Your task to perform on an android device: turn off javascript in the chrome app Image 0: 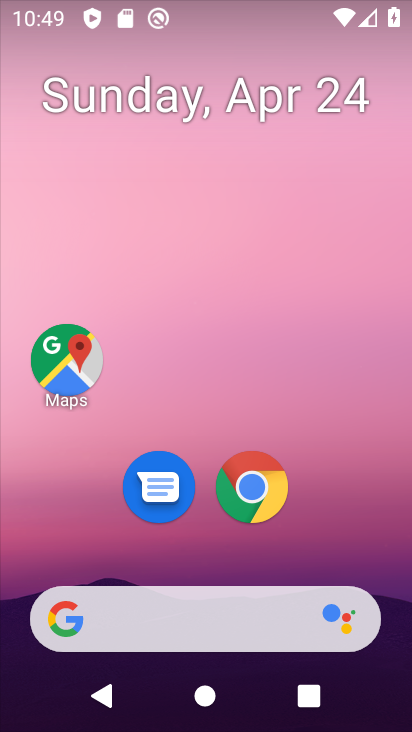
Step 0: click (232, 498)
Your task to perform on an android device: turn off javascript in the chrome app Image 1: 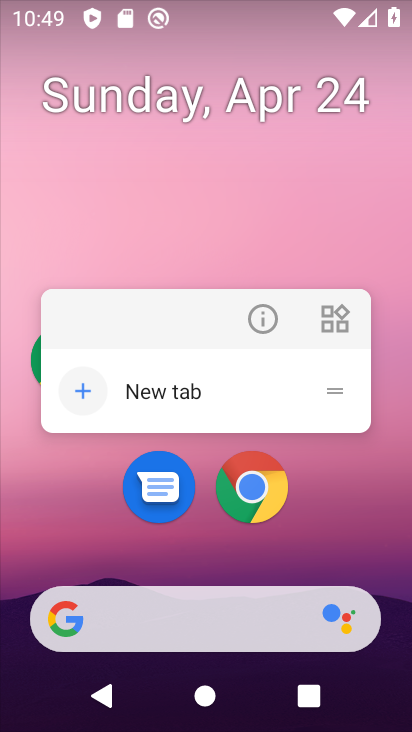
Step 1: click (266, 324)
Your task to perform on an android device: turn off javascript in the chrome app Image 2: 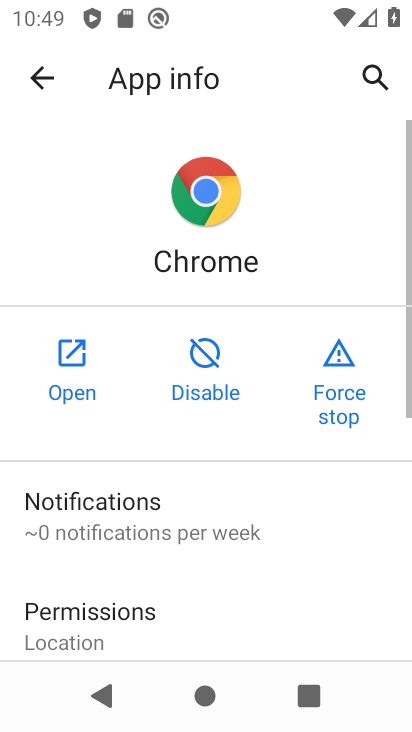
Step 2: click (80, 360)
Your task to perform on an android device: turn off javascript in the chrome app Image 3: 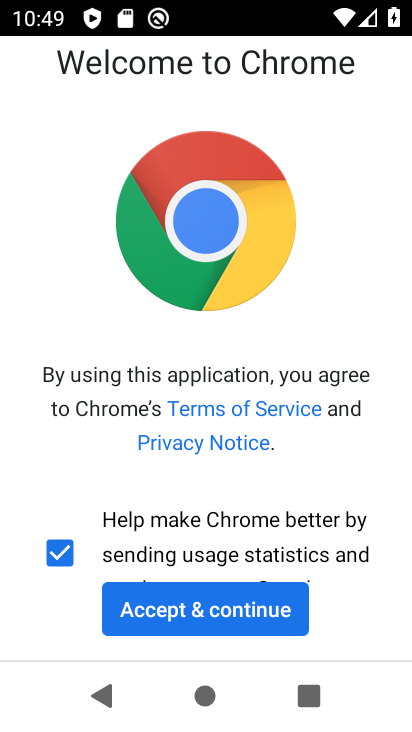
Step 3: click (181, 597)
Your task to perform on an android device: turn off javascript in the chrome app Image 4: 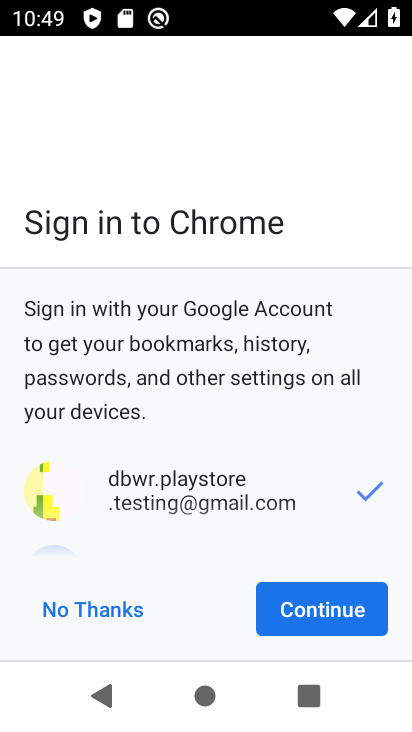
Step 4: click (68, 609)
Your task to perform on an android device: turn off javascript in the chrome app Image 5: 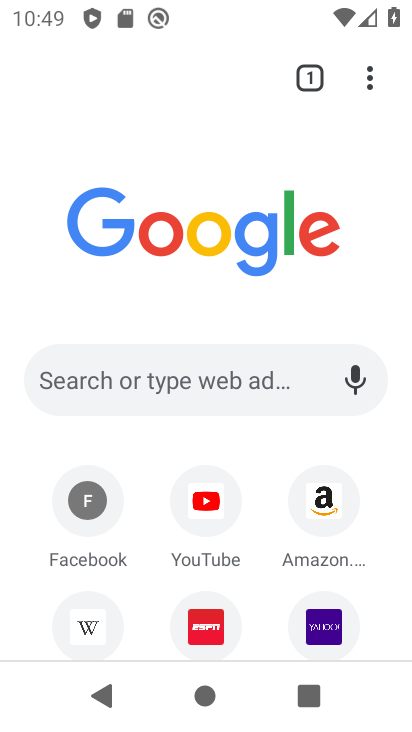
Step 5: click (373, 70)
Your task to perform on an android device: turn off javascript in the chrome app Image 6: 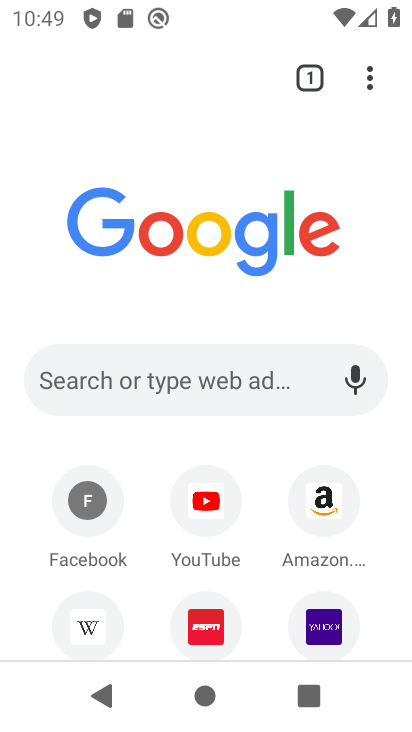
Step 6: click (371, 67)
Your task to perform on an android device: turn off javascript in the chrome app Image 7: 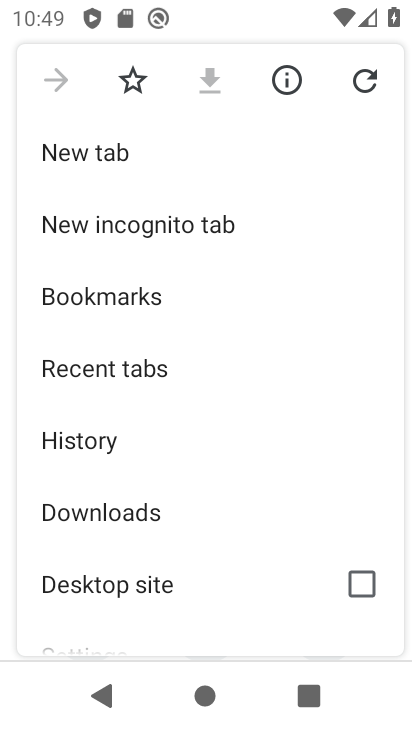
Step 7: drag from (199, 503) to (282, 241)
Your task to perform on an android device: turn off javascript in the chrome app Image 8: 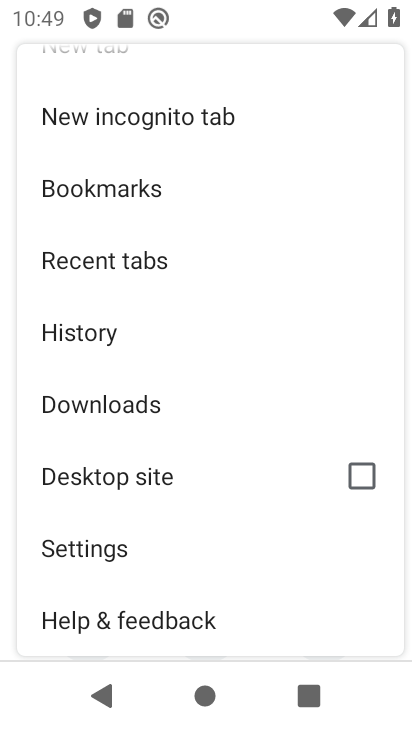
Step 8: click (93, 532)
Your task to perform on an android device: turn off javascript in the chrome app Image 9: 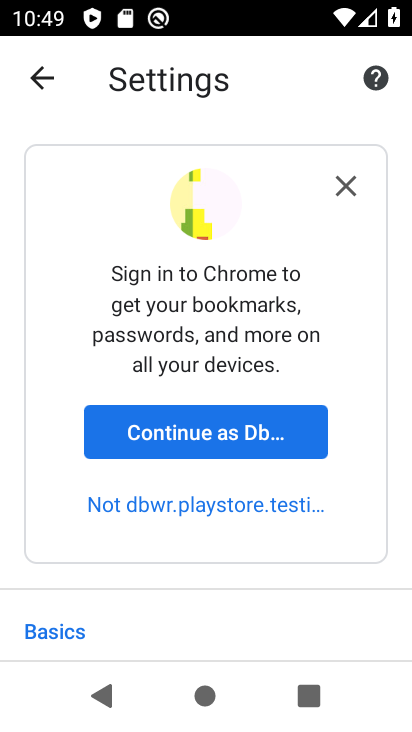
Step 9: click (341, 186)
Your task to perform on an android device: turn off javascript in the chrome app Image 10: 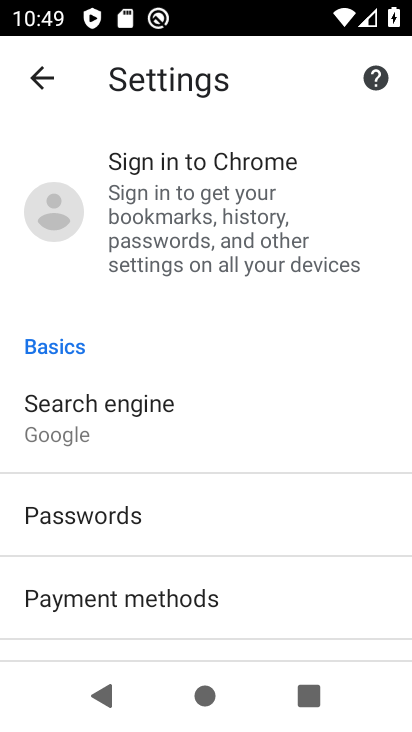
Step 10: drag from (155, 554) to (259, 114)
Your task to perform on an android device: turn off javascript in the chrome app Image 11: 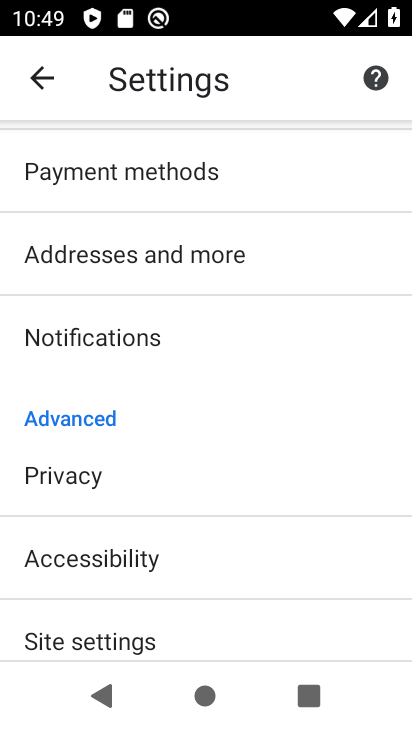
Step 11: drag from (72, 593) to (155, 294)
Your task to perform on an android device: turn off javascript in the chrome app Image 12: 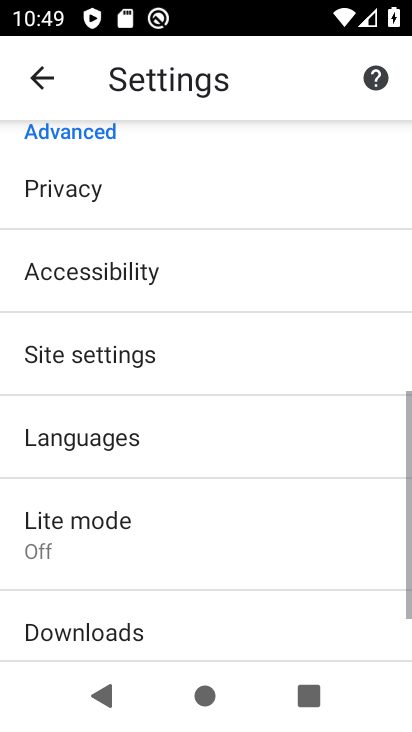
Step 12: click (69, 358)
Your task to perform on an android device: turn off javascript in the chrome app Image 13: 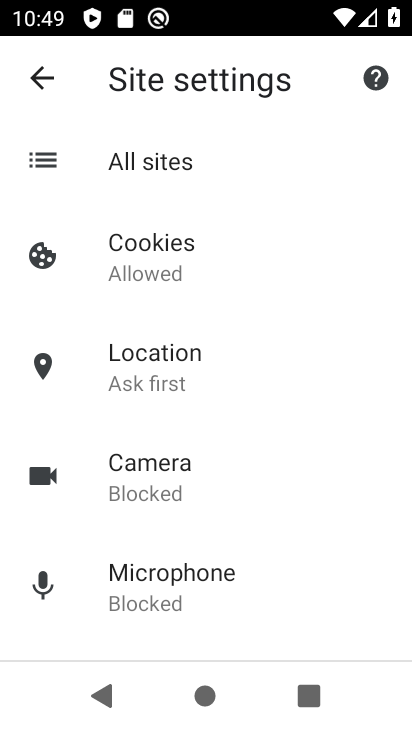
Step 13: drag from (264, 571) to (316, 265)
Your task to perform on an android device: turn off javascript in the chrome app Image 14: 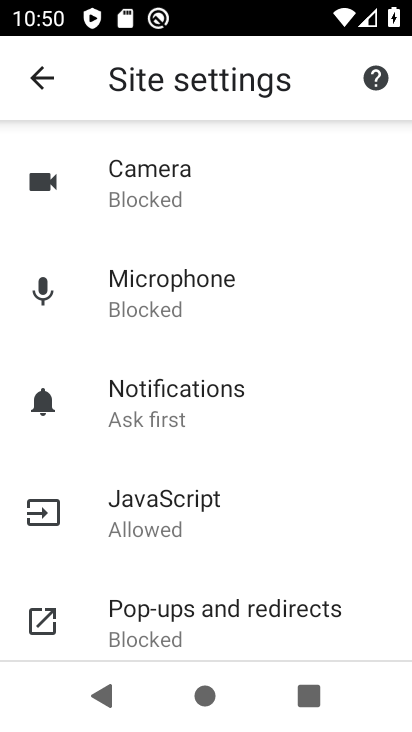
Step 14: click (170, 496)
Your task to perform on an android device: turn off javascript in the chrome app Image 15: 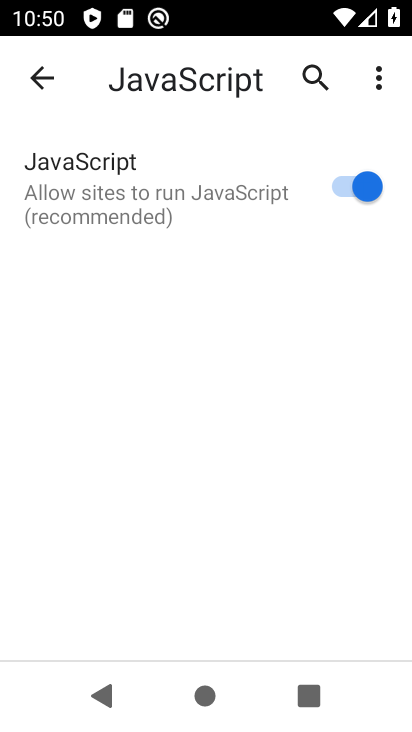
Step 15: click (376, 192)
Your task to perform on an android device: turn off javascript in the chrome app Image 16: 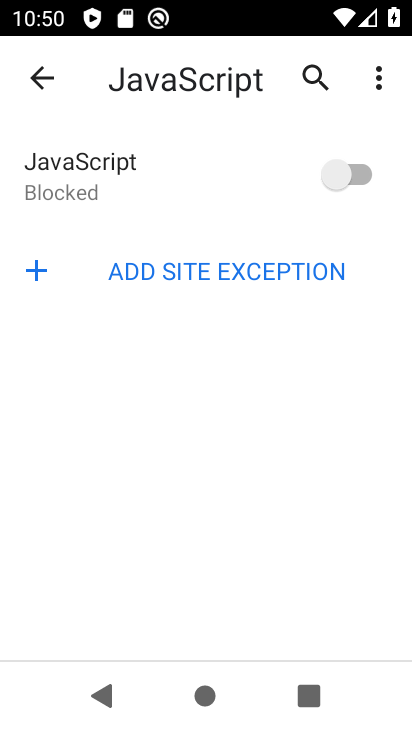
Step 16: task complete